Your task to perform on an android device: change the clock display to analog Image 0: 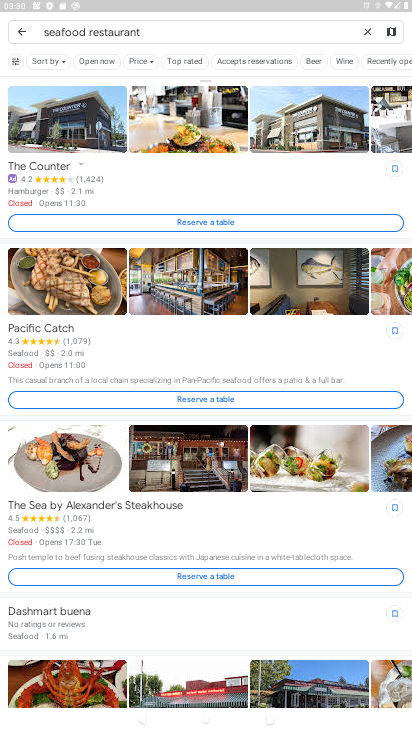
Step 0: press home button
Your task to perform on an android device: change the clock display to analog Image 1: 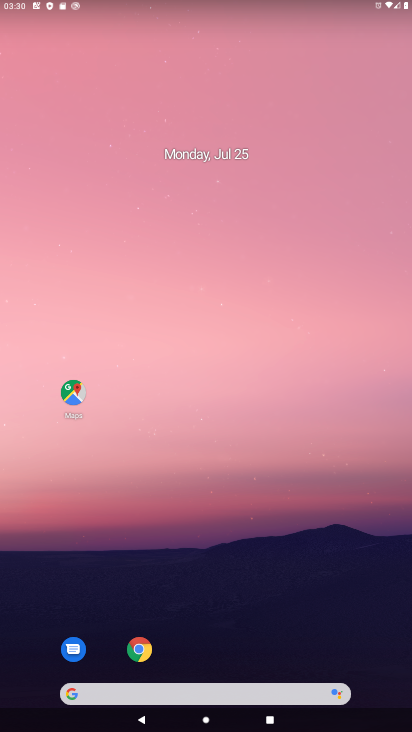
Step 1: drag from (379, 635) to (336, 96)
Your task to perform on an android device: change the clock display to analog Image 2: 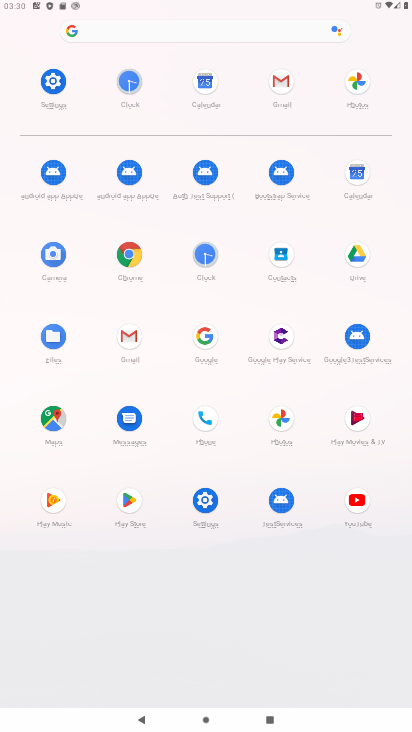
Step 2: click (206, 255)
Your task to perform on an android device: change the clock display to analog Image 3: 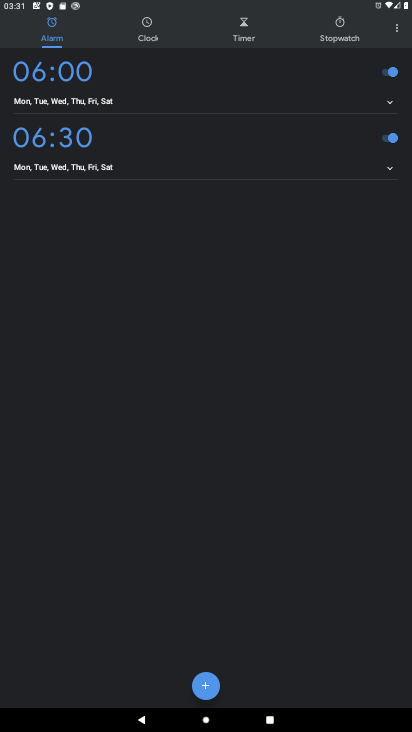
Step 3: click (395, 34)
Your task to perform on an android device: change the clock display to analog Image 4: 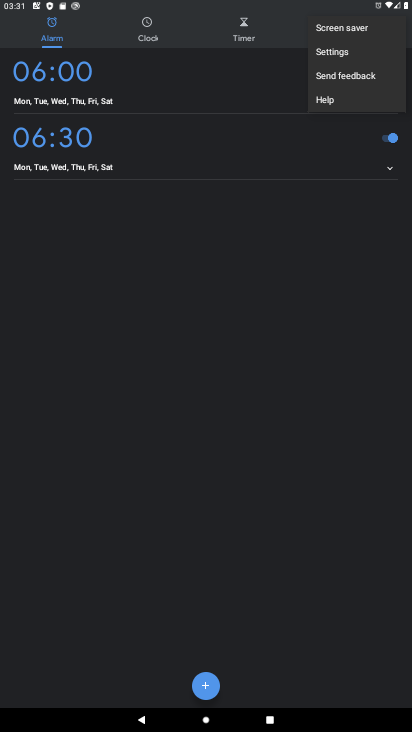
Step 4: click (332, 55)
Your task to perform on an android device: change the clock display to analog Image 5: 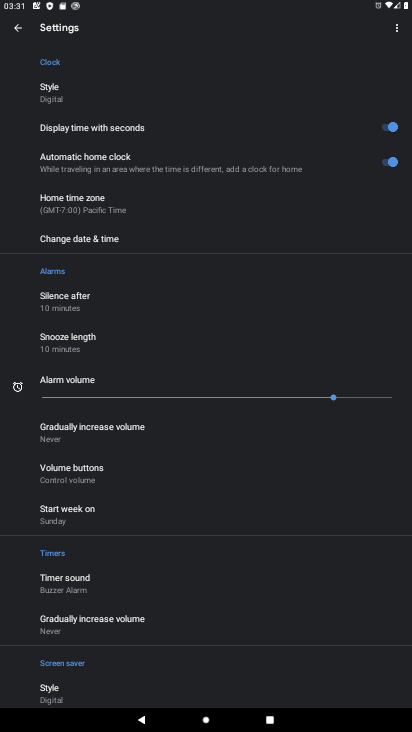
Step 5: click (57, 92)
Your task to perform on an android device: change the clock display to analog Image 6: 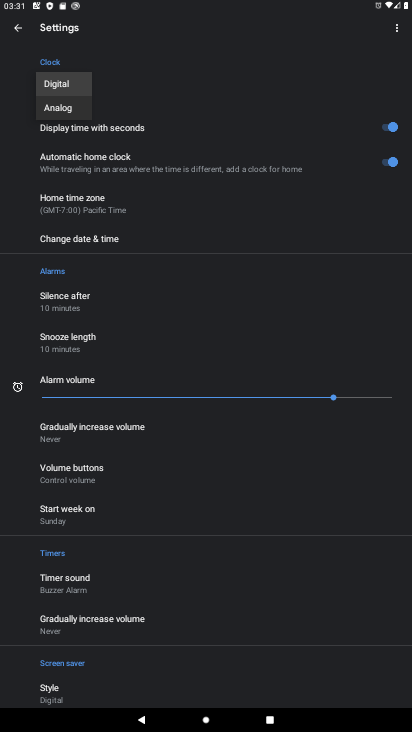
Step 6: click (67, 106)
Your task to perform on an android device: change the clock display to analog Image 7: 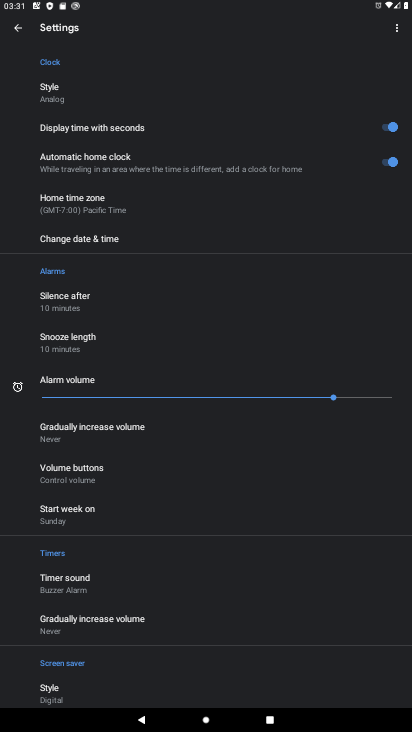
Step 7: task complete